Your task to perform on an android device: install app "Duolingo: language lessons" Image 0: 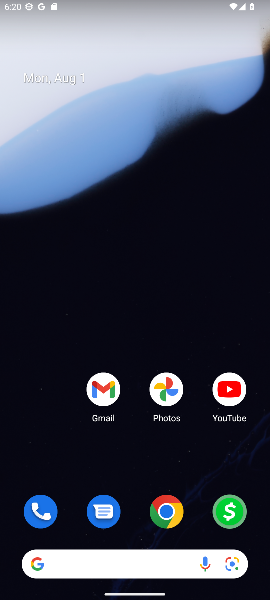
Step 0: drag from (173, 460) to (142, 177)
Your task to perform on an android device: install app "Duolingo: language lessons" Image 1: 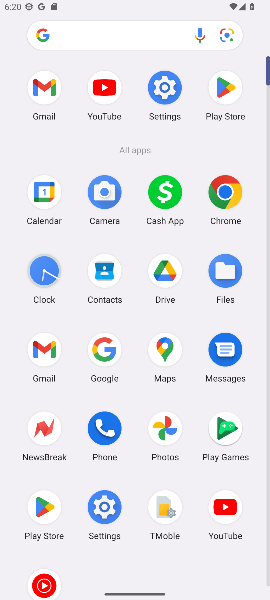
Step 1: click (48, 502)
Your task to perform on an android device: install app "Duolingo: language lessons" Image 2: 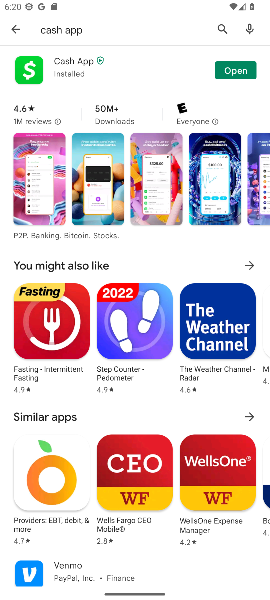
Step 2: click (221, 27)
Your task to perform on an android device: install app "Duolingo: language lessons" Image 3: 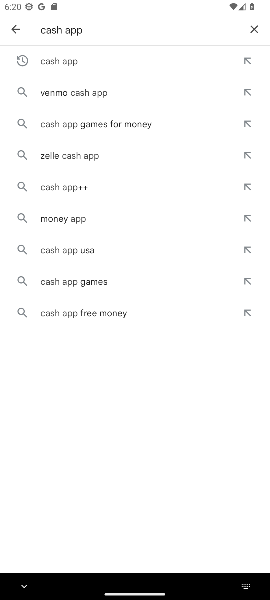
Step 3: click (256, 27)
Your task to perform on an android device: install app "Duolingo: language lessons" Image 4: 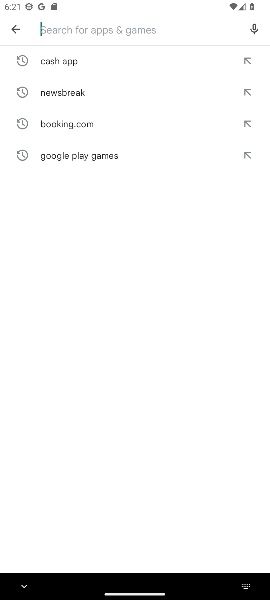
Step 4: type "duolingo"
Your task to perform on an android device: install app "Duolingo: language lessons" Image 5: 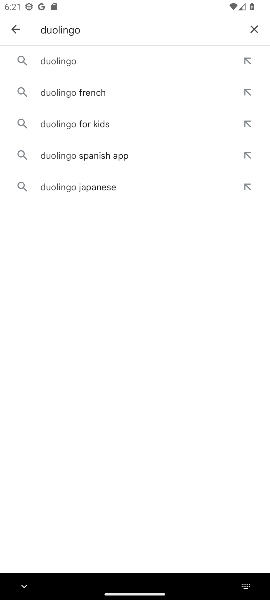
Step 5: click (71, 54)
Your task to perform on an android device: install app "Duolingo: language lessons" Image 6: 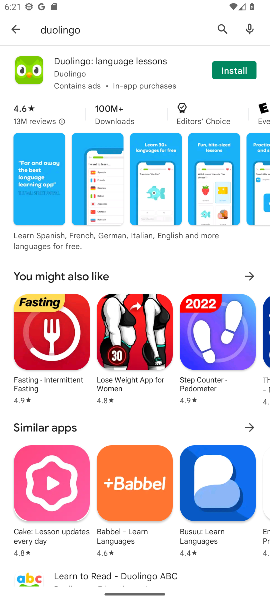
Step 6: click (233, 66)
Your task to perform on an android device: install app "Duolingo: language lessons" Image 7: 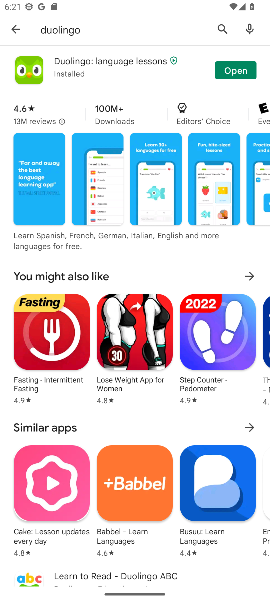
Step 7: task complete